Your task to perform on an android device: Search for Italian restaurants on Maps Image 0: 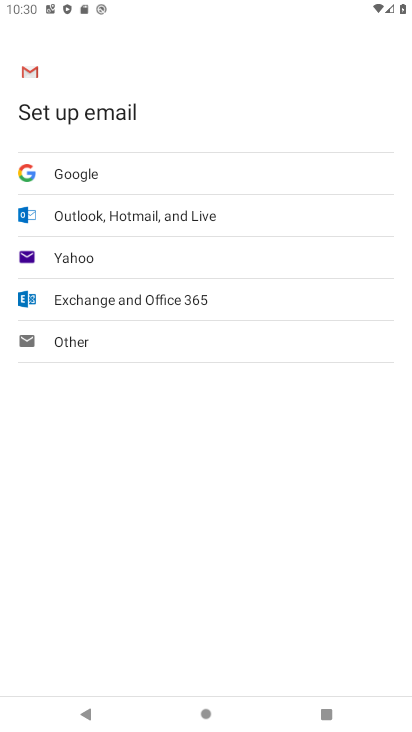
Step 0: press home button
Your task to perform on an android device: Search for Italian restaurants on Maps Image 1: 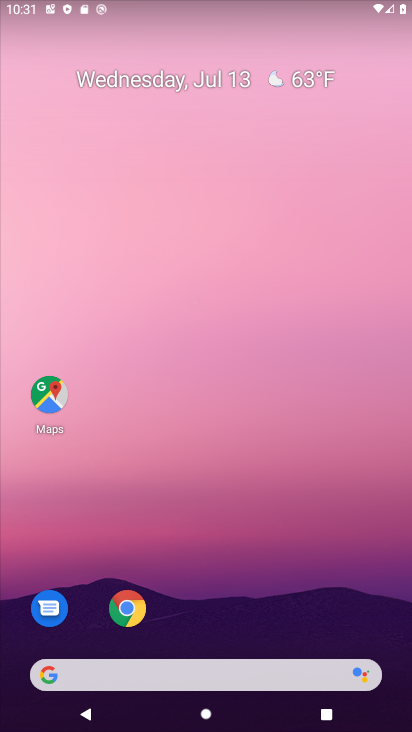
Step 1: click (43, 389)
Your task to perform on an android device: Search for Italian restaurants on Maps Image 2: 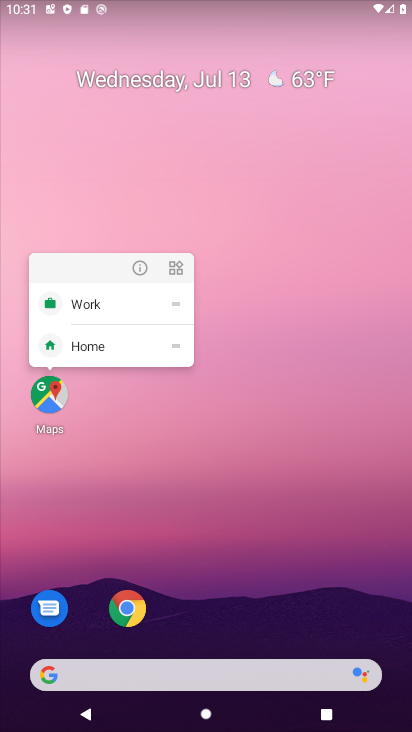
Step 2: click (43, 389)
Your task to perform on an android device: Search for Italian restaurants on Maps Image 3: 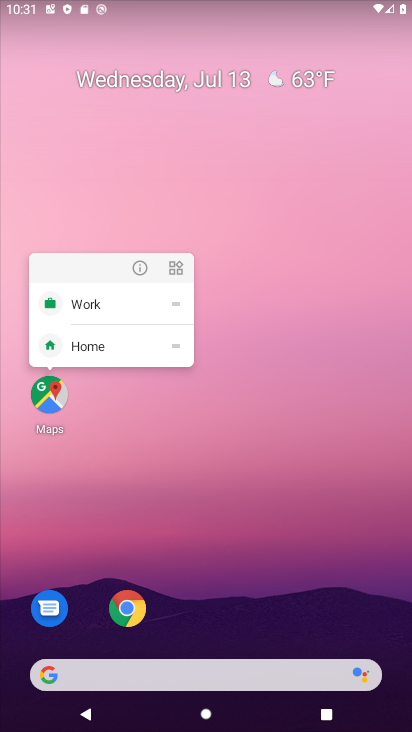
Step 3: click (43, 389)
Your task to perform on an android device: Search for Italian restaurants on Maps Image 4: 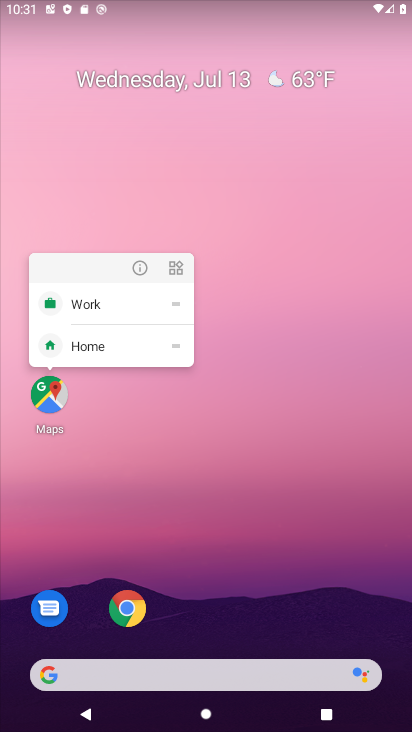
Step 4: click (51, 403)
Your task to perform on an android device: Search for Italian restaurants on Maps Image 5: 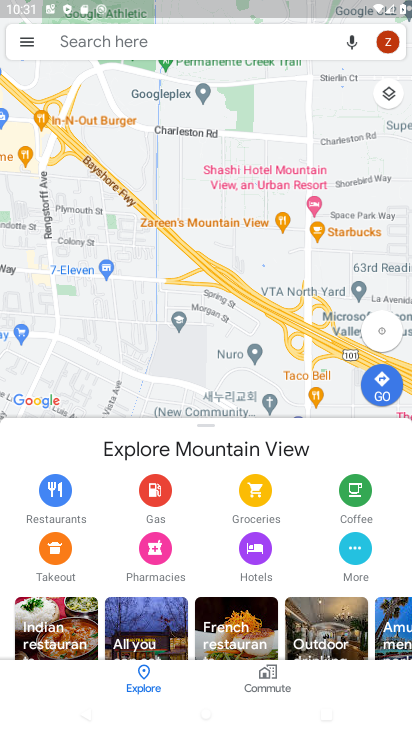
Step 5: click (253, 44)
Your task to perform on an android device: Search for Italian restaurants on Maps Image 6: 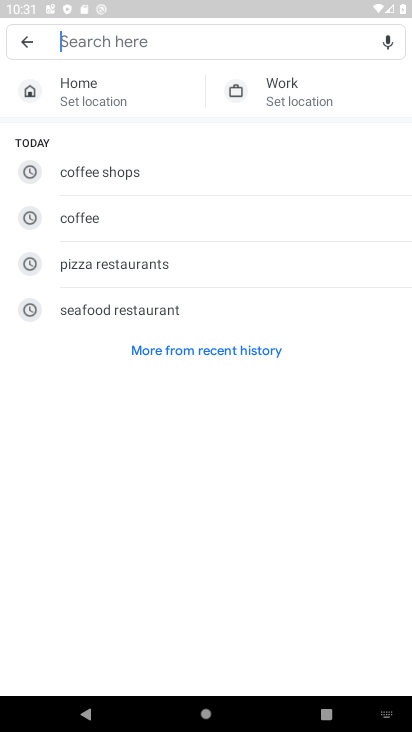
Step 6: type "Italian restaurants"
Your task to perform on an android device: Search for Italian restaurants on Maps Image 7: 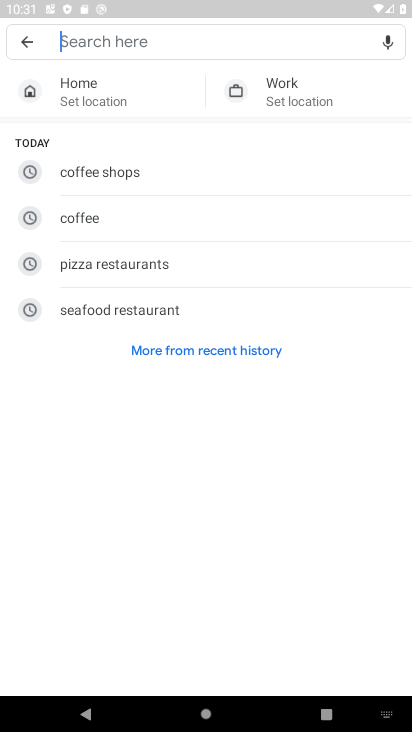
Step 7: click (96, 35)
Your task to perform on an android device: Search for Italian restaurants on Maps Image 8: 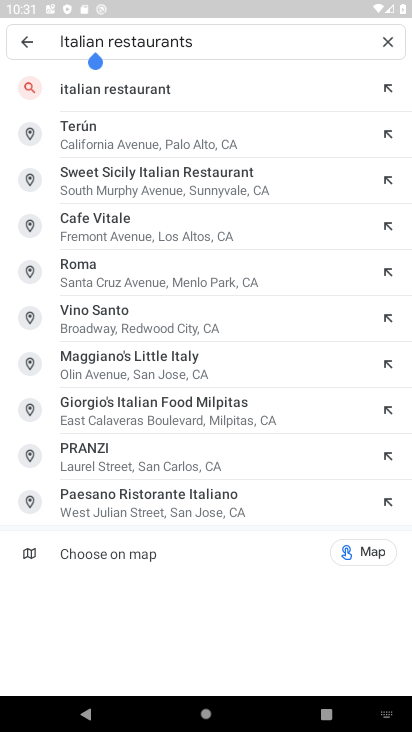
Step 8: click (105, 91)
Your task to perform on an android device: Search for Italian restaurants on Maps Image 9: 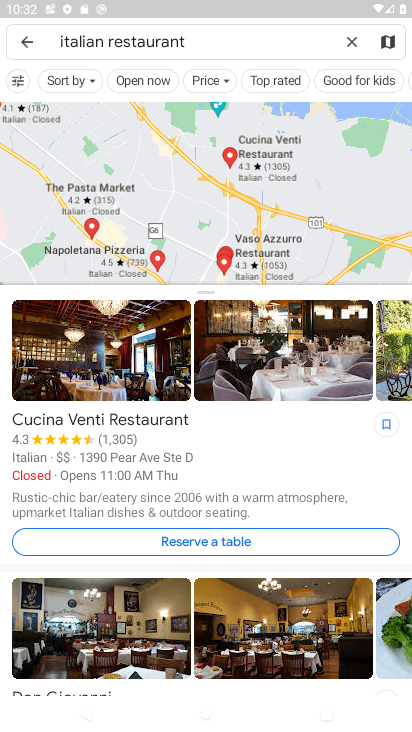
Step 9: task complete